Your task to perform on an android device: change the clock display to show seconds Image 0: 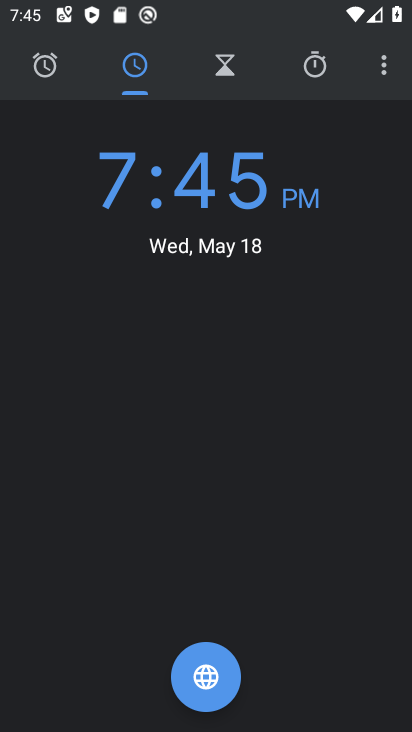
Step 0: click (395, 63)
Your task to perform on an android device: change the clock display to show seconds Image 1: 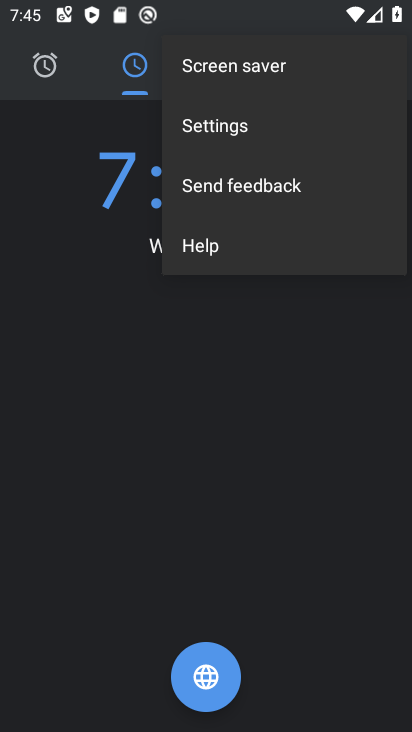
Step 1: click (259, 123)
Your task to perform on an android device: change the clock display to show seconds Image 2: 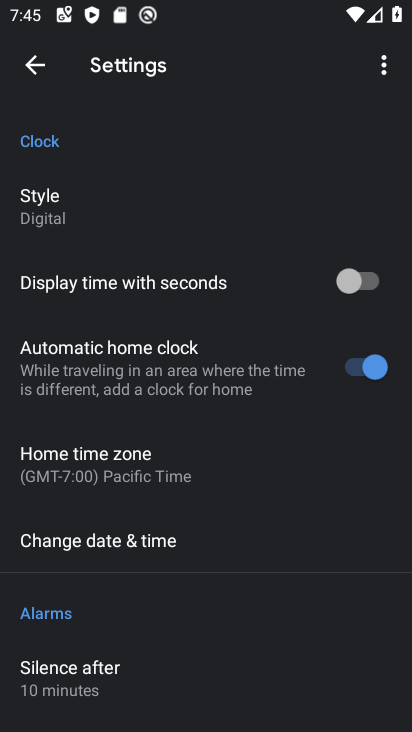
Step 2: click (374, 280)
Your task to perform on an android device: change the clock display to show seconds Image 3: 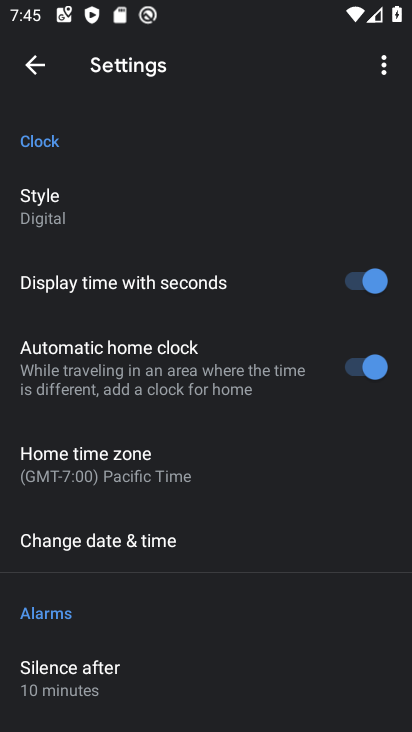
Step 3: task complete